Your task to perform on an android device: toggle translation in the chrome app Image 0: 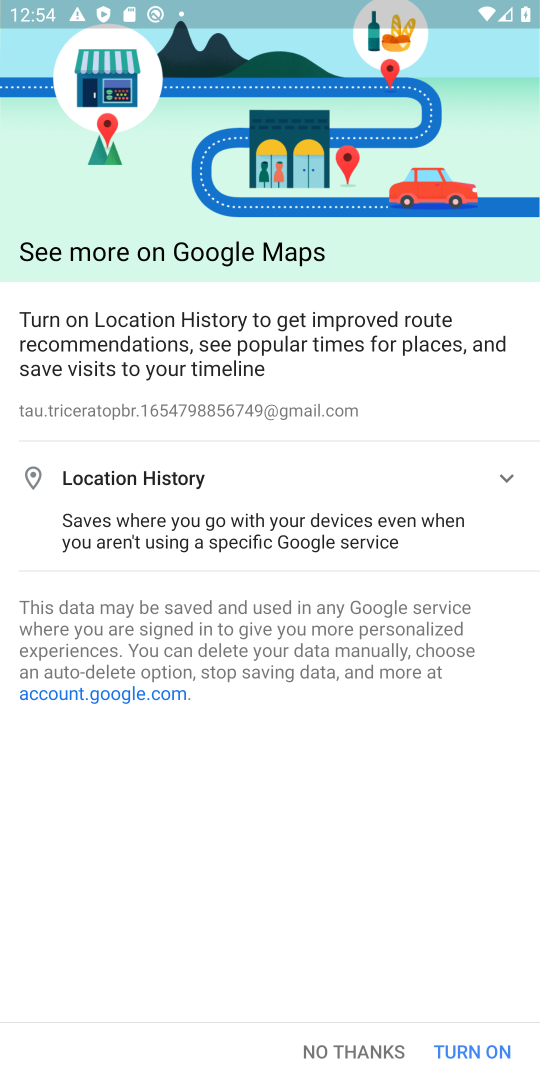
Step 0: press home button
Your task to perform on an android device: toggle translation in the chrome app Image 1: 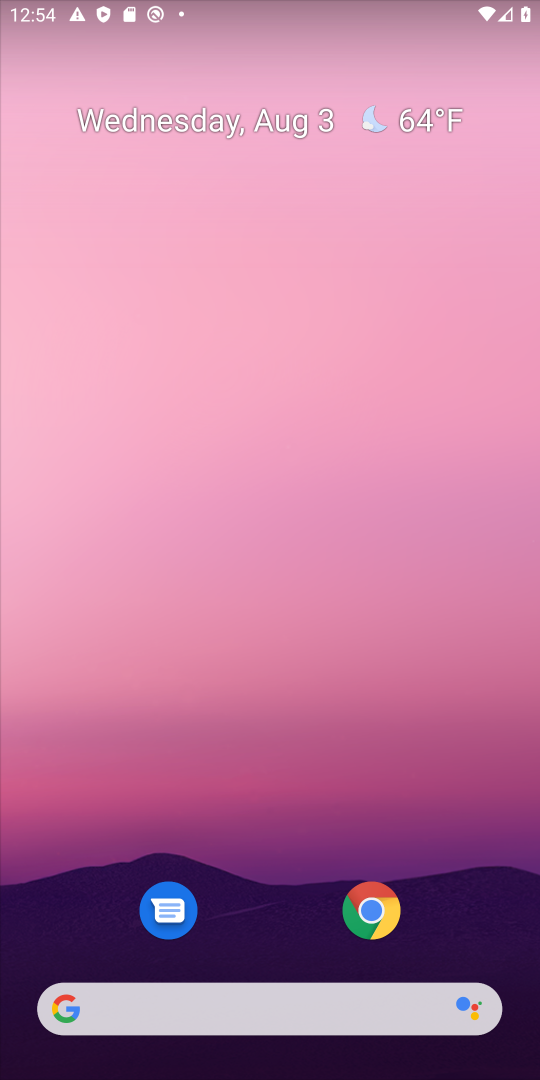
Step 1: drag from (269, 675) to (388, 1)
Your task to perform on an android device: toggle translation in the chrome app Image 2: 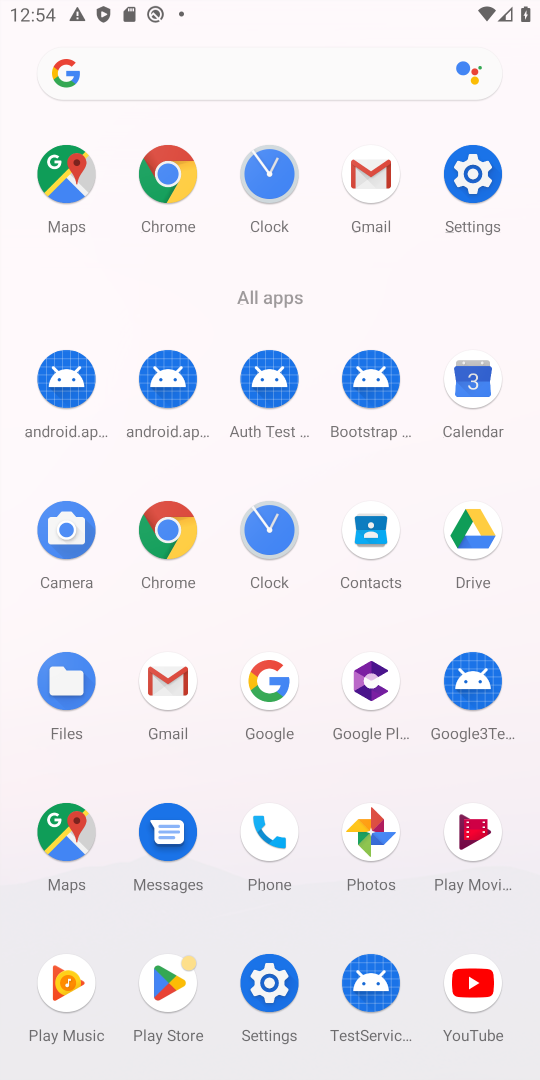
Step 2: click (179, 532)
Your task to perform on an android device: toggle translation in the chrome app Image 3: 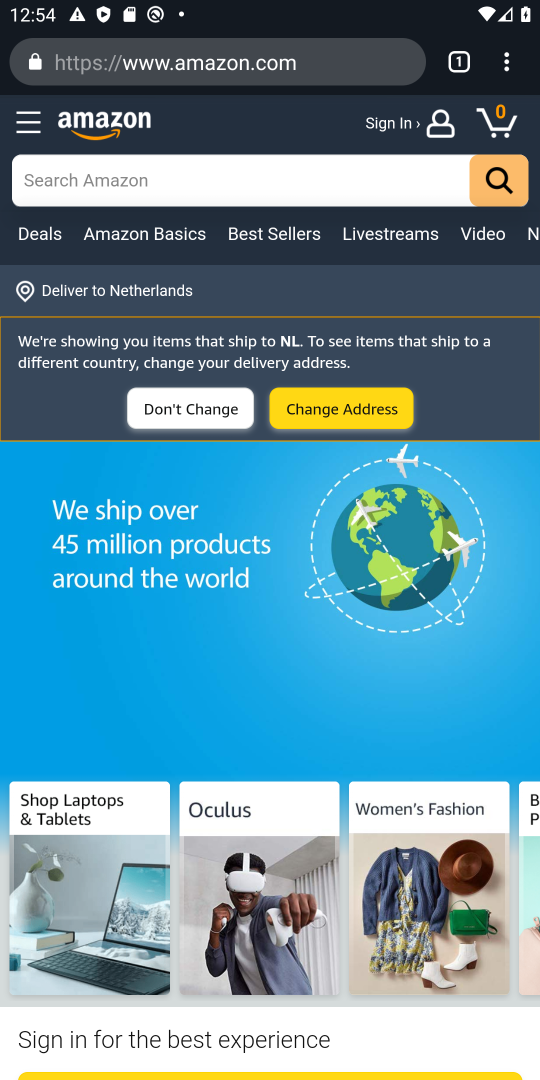
Step 3: drag from (513, 57) to (297, 741)
Your task to perform on an android device: toggle translation in the chrome app Image 4: 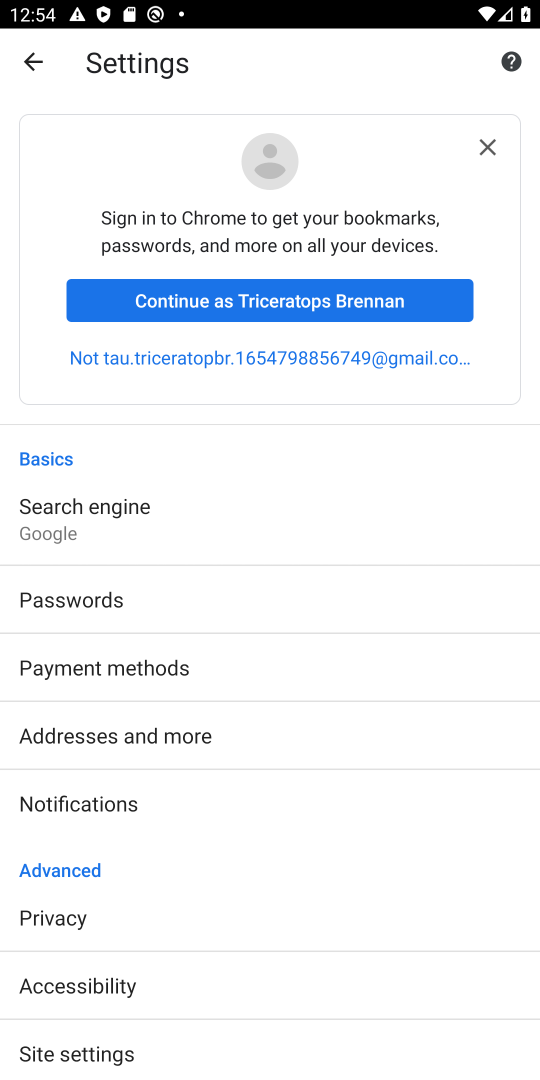
Step 4: drag from (218, 916) to (272, 359)
Your task to perform on an android device: toggle translation in the chrome app Image 5: 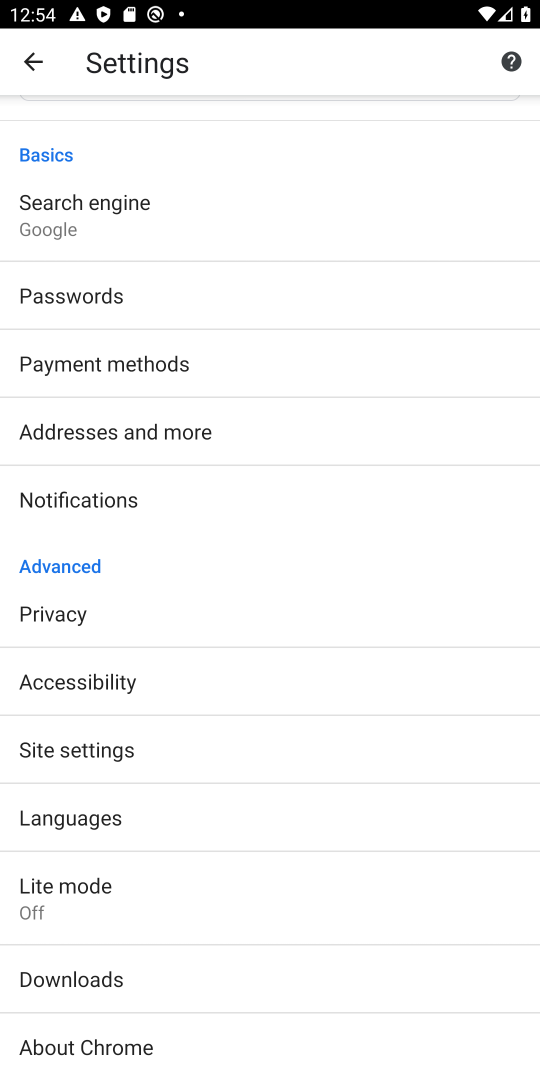
Step 5: click (99, 811)
Your task to perform on an android device: toggle translation in the chrome app Image 6: 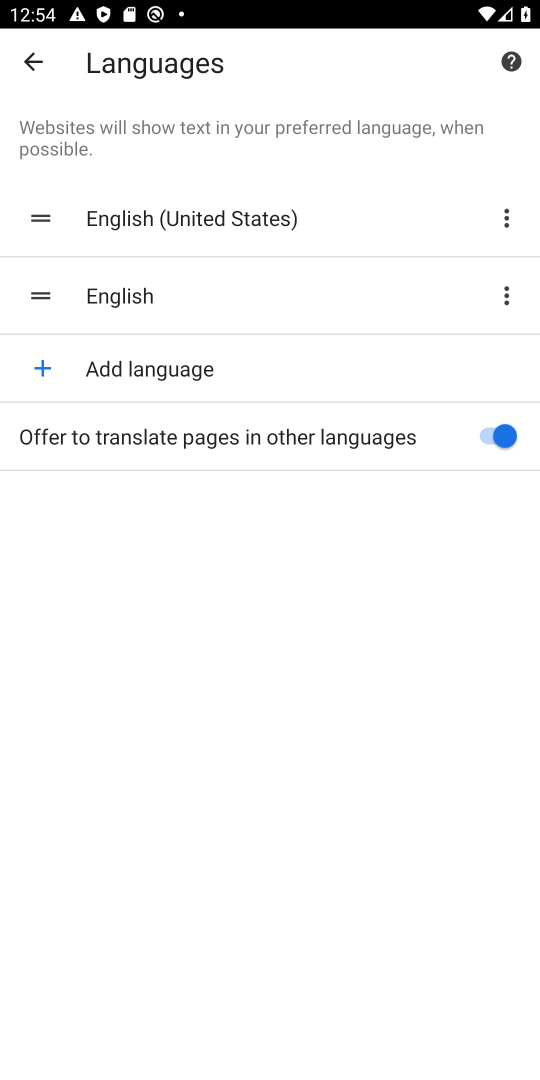
Step 6: click (512, 440)
Your task to perform on an android device: toggle translation in the chrome app Image 7: 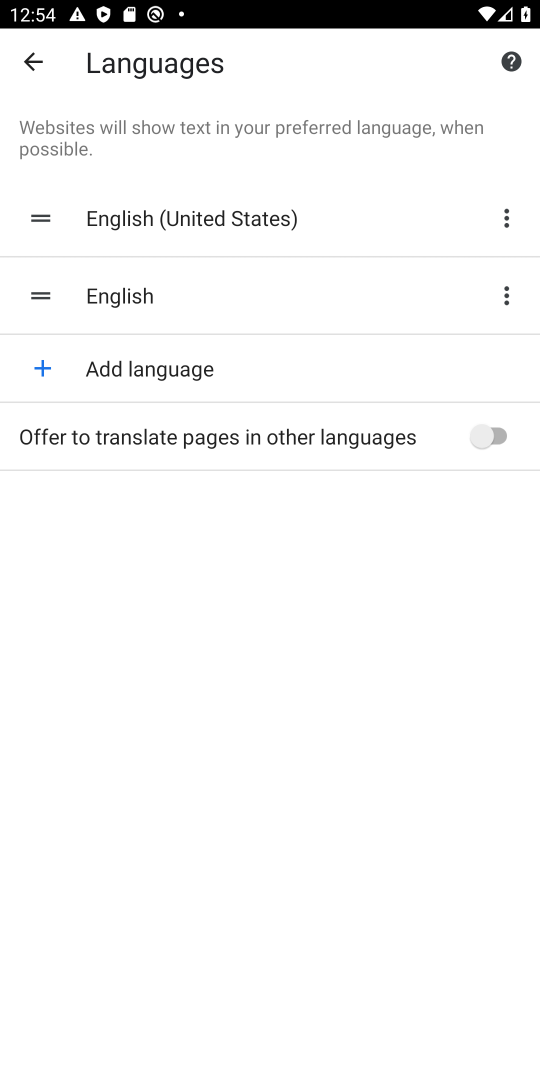
Step 7: task complete